Your task to perform on an android device: clear all cookies in the chrome app Image 0: 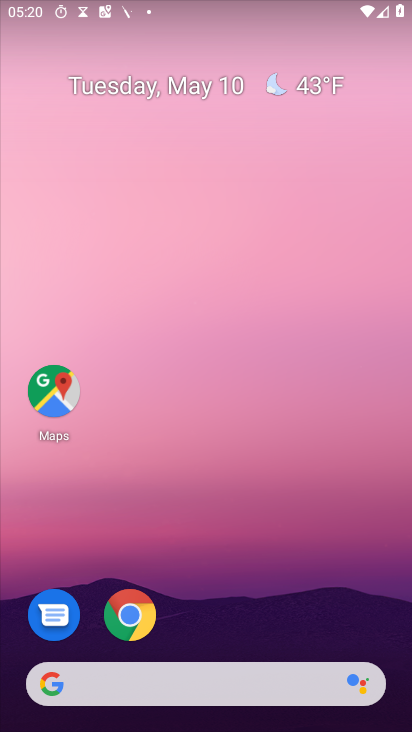
Step 0: drag from (265, 668) to (348, 61)
Your task to perform on an android device: clear all cookies in the chrome app Image 1: 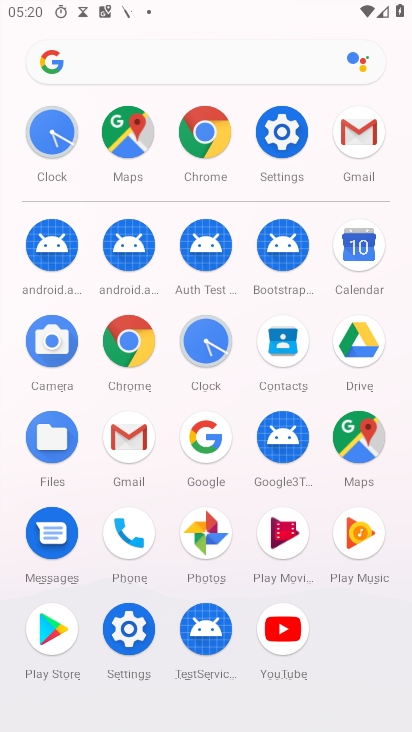
Step 1: click (118, 356)
Your task to perform on an android device: clear all cookies in the chrome app Image 2: 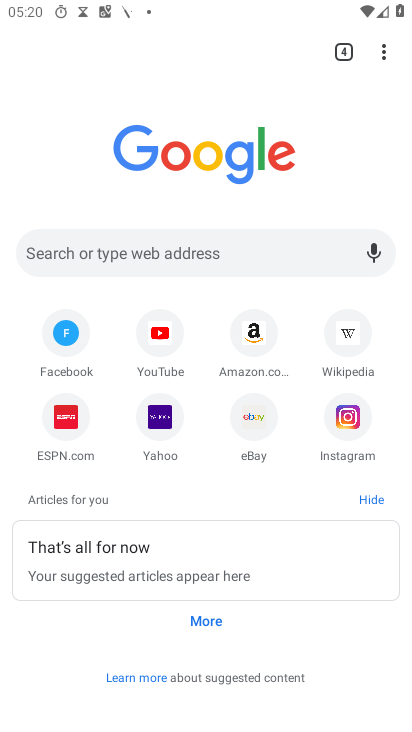
Step 2: click (384, 58)
Your task to perform on an android device: clear all cookies in the chrome app Image 3: 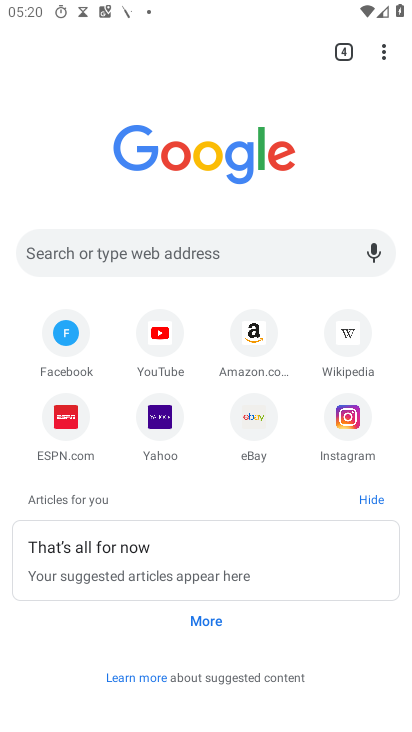
Step 3: drag from (381, 46) to (240, 430)
Your task to perform on an android device: clear all cookies in the chrome app Image 4: 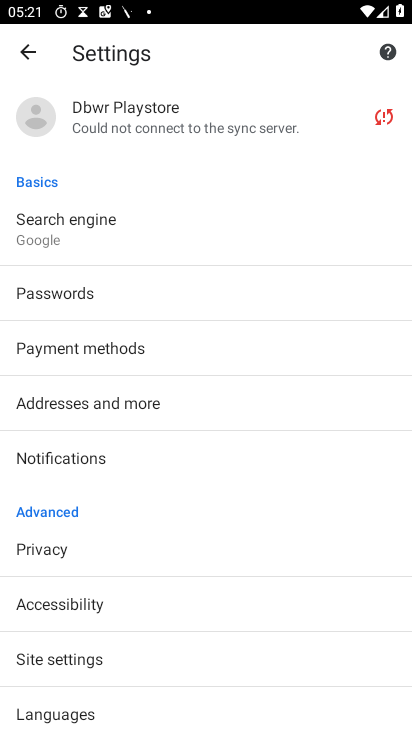
Step 4: drag from (191, 670) to (211, 326)
Your task to perform on an android device: clear all cookies in the chrome app Image 5: 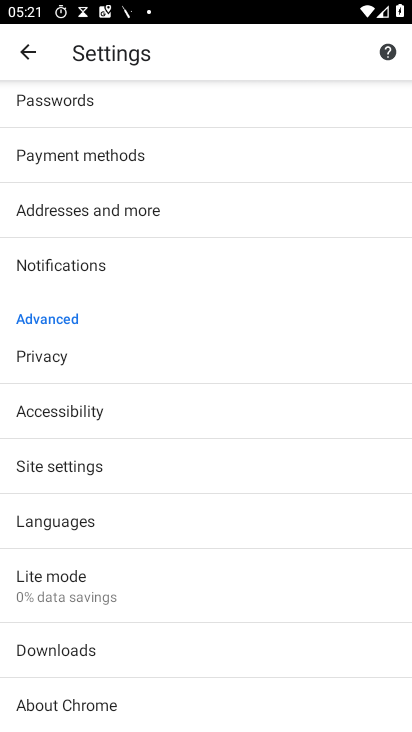
Step 5: click (87, 475)
Your task to perform on an android device: clear all cookies in the chrome app Image 6: 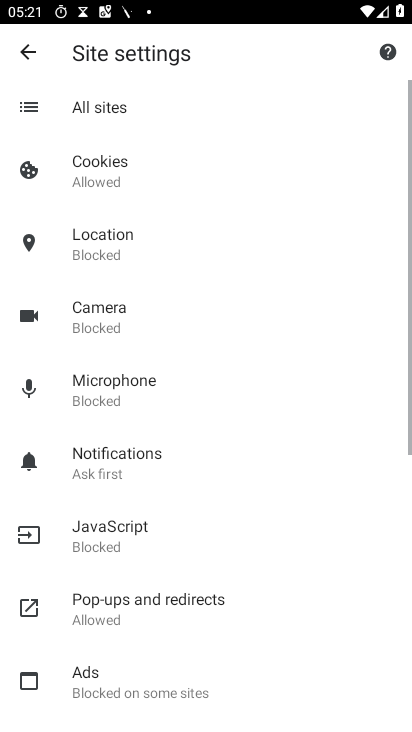
Step 6: click (107, 166)
Your task to perform on an android device: clear all cookies in the chrome app Image 7: 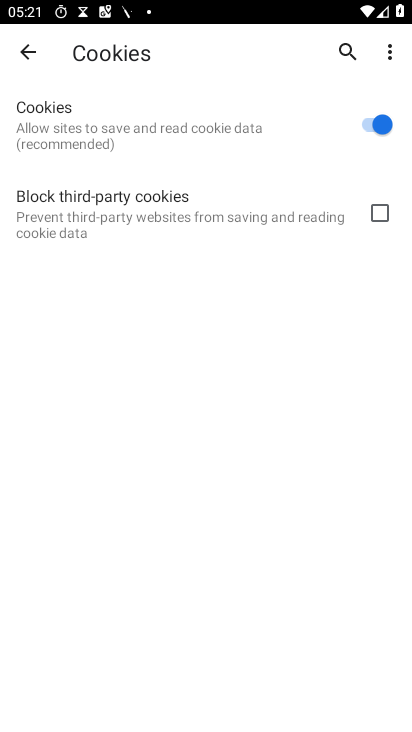
Step 7: press back button
Your task to perform on an android device: clear all cookies in the chrome app Image 8: 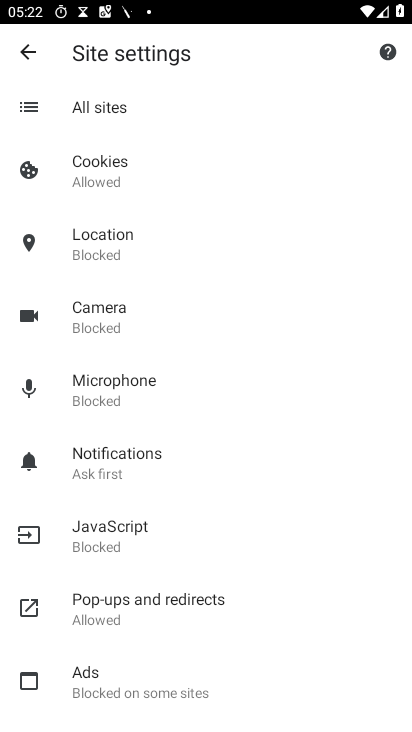
Step 8: drag from (158, 658) to (152, 164)
Your task to perform on an android device: clear all cookies in the chrome app Image 9: 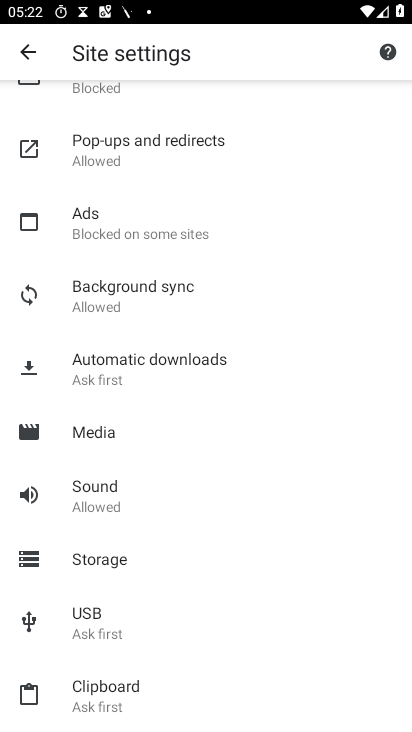
Step 9: drag from (155, 190) to (188, 661)
Your task to perform on an android device: clear all cookies in the chrome app Image 10: 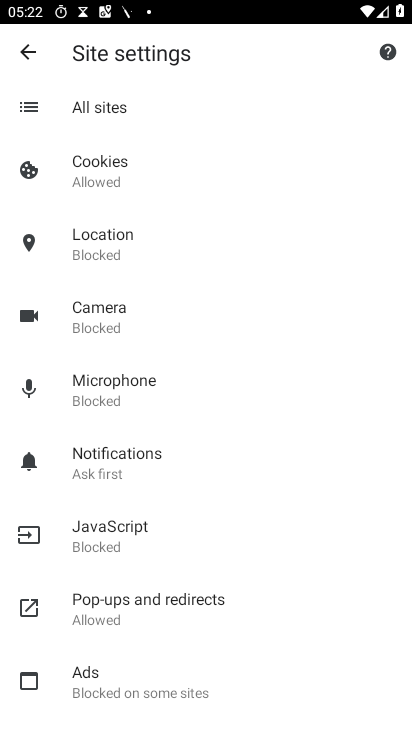
Step 10: drag from (170, 331) to (234, 731)
Your task to perform on an android device: clear all cookies in the chrome app Image 11: 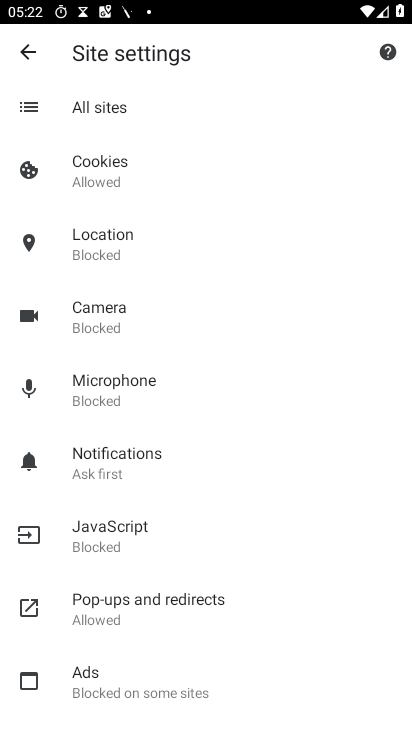
Step 11: press back button
Your task to perform on an android device: clear all cookies in the chrome app Image 12: 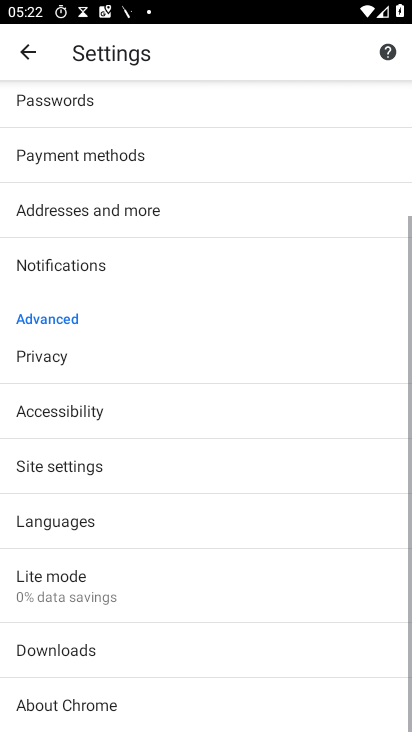
Step 12: click (83, 366)
Your task to perform on an android device: clear all cookies in the chrome app Image 13: 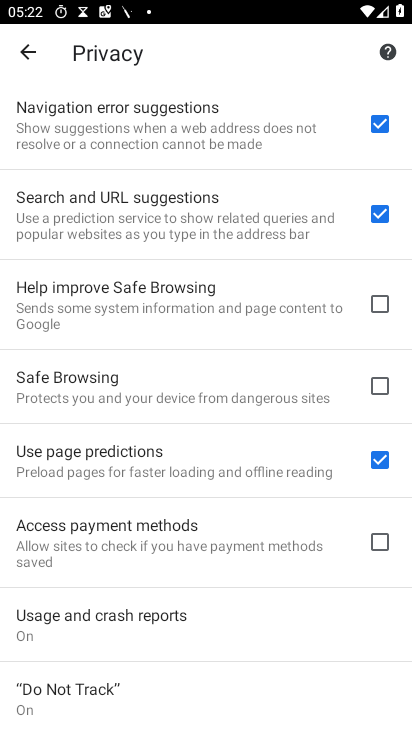
Step 13: drag from (234, 669) to (278, 134)
Your task to perform on an android device: clear all cookies in the chrome app Image 14: 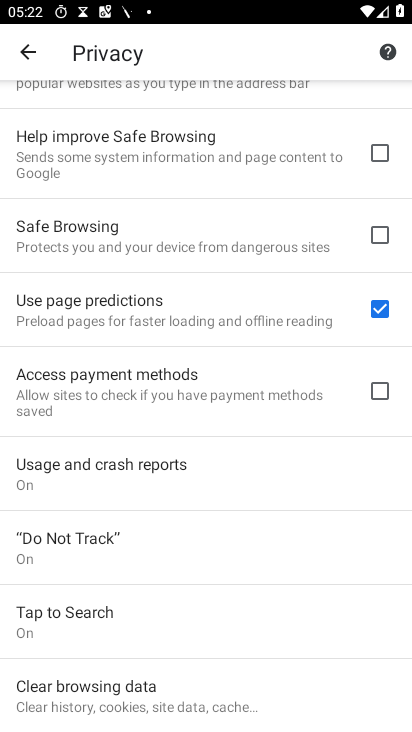
Step 14: click (197, 692)
Your task to perform on an android device: clear all cookies in the chrome app Image 15: 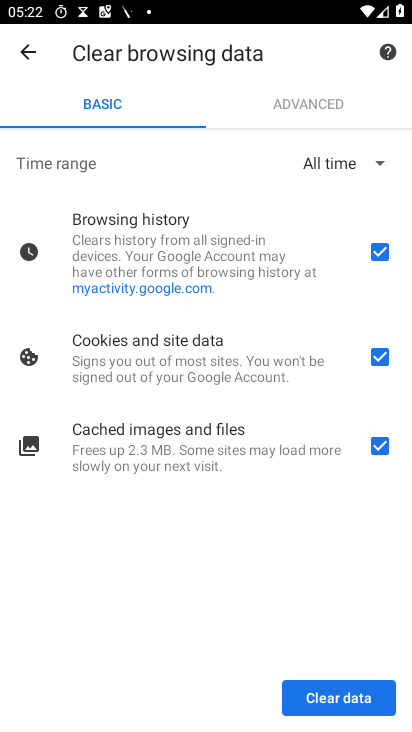
Step 15: click (331, 697)
Your task to perform on an android device: clear all cookies in the chrome app Image 16: 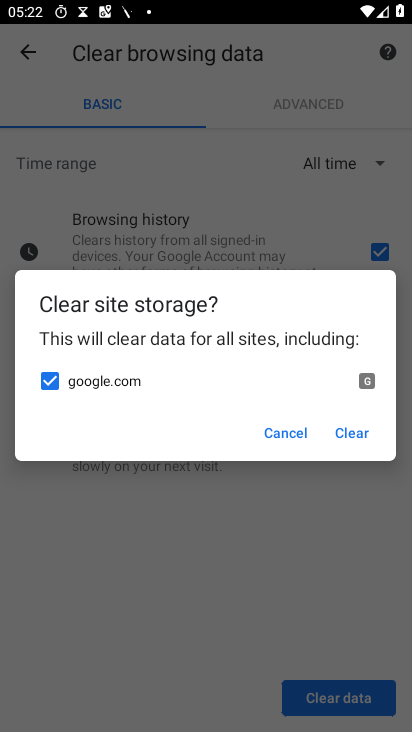
Step 16: click (342, 437)
Your task to perform on an android device: clear all cookies in the chrome app Image 17: 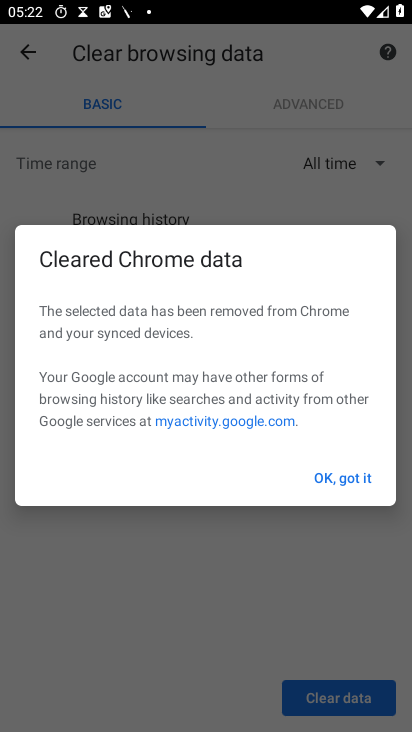
Step 17: click (340, 480)
Your task to perform on an android device: clear all cookies in the chrome app Image 18: 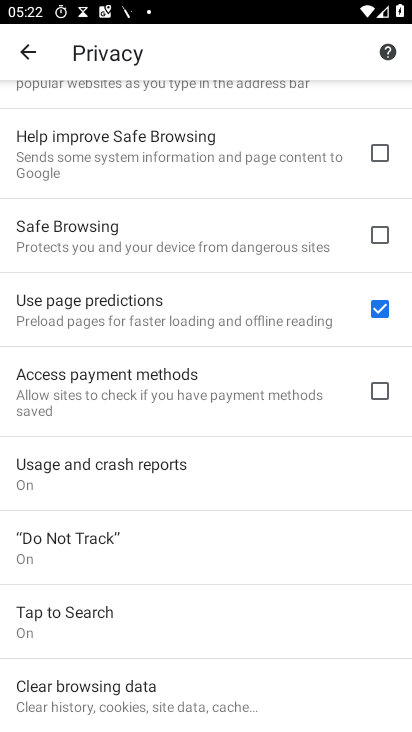
Step 18: task complete